Your task to perform on an android device: open a bookmark in the chrome app Image 0: 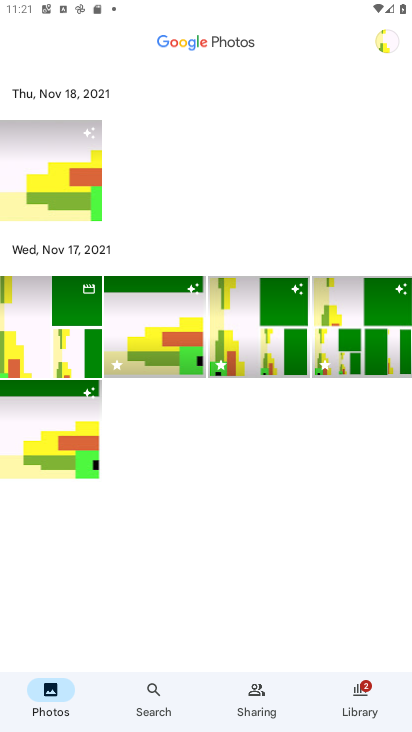
Step 0: press home button
Your task to perform on an android device: open a bookmark in the chrome app Image 1: 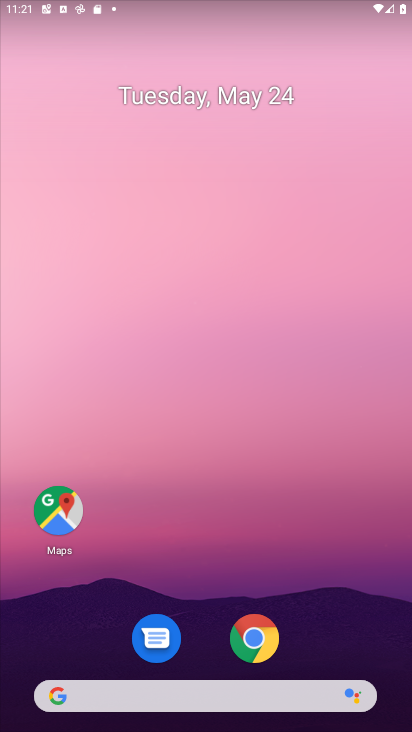
Step 1: drag from (204, 719) to (333, 264)
Your task to perform on an android device: open a bookmark in the chrome app Image 2: 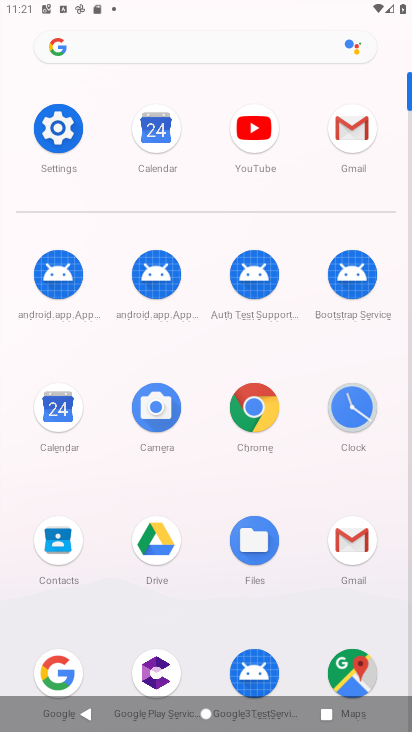
Step 2: click (270, 399)
Your task to perform on an android device: open a bookmark in the chrome app Image 3: 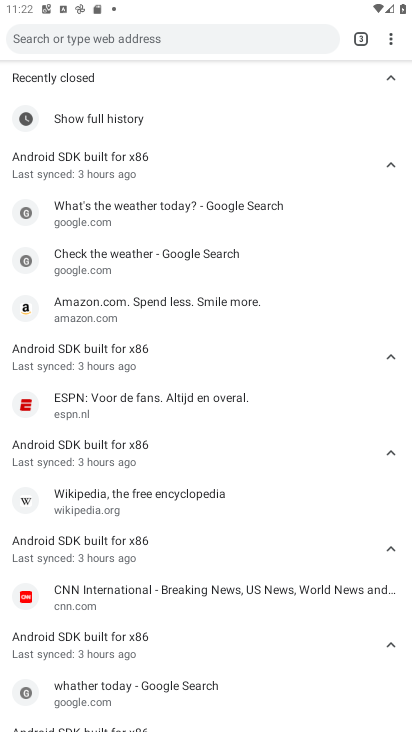
Step 3: task complete